Your task to perform on an android device: Open Wikipedia Image 0: 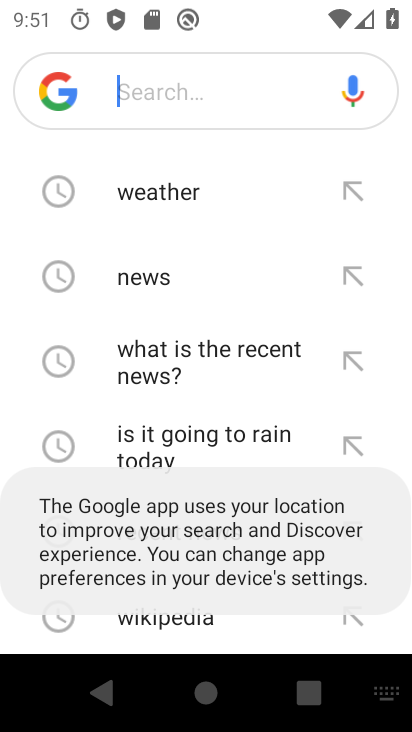
Step 0: press back button
Your task to perform on an android device: Open Wikipedia Image 1: 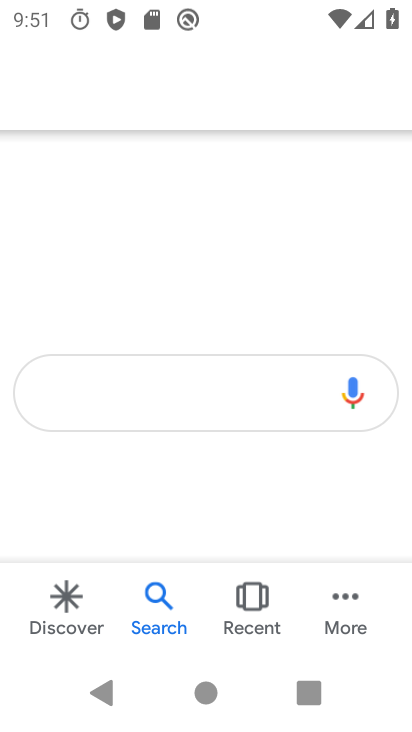
Step 1: press home button
Your task to perform on an android device: Open Wikipedia Image 2: 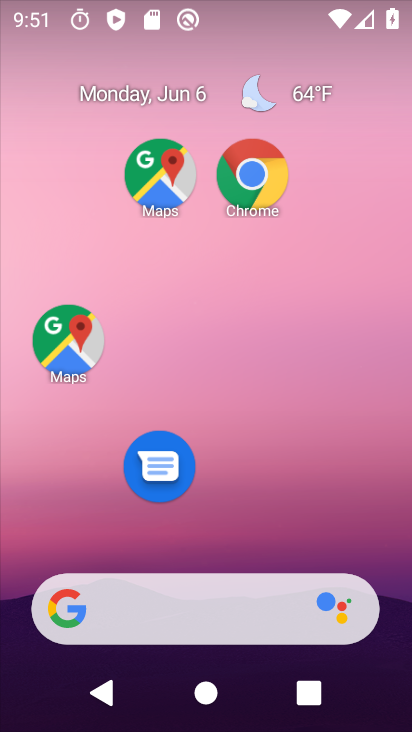
Step 2: drag from (289, 695) to (208, 124)
Your task to perform on an android device: Open Wikipedia Image 3: 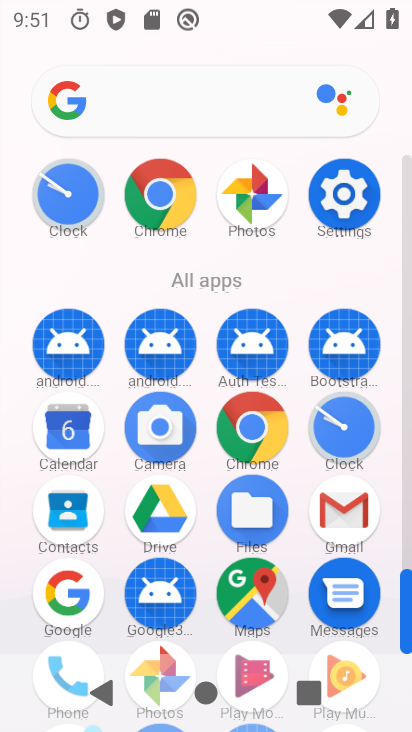
Step 3: click (174, 202)
Your task to perform on an android device: Open Wikipedia Image 4: 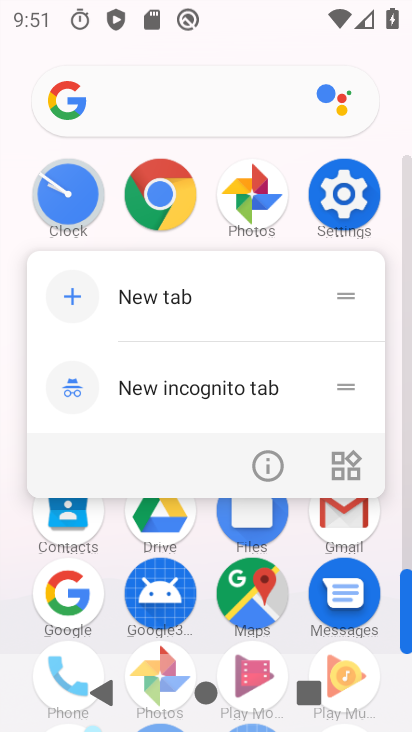
Step 4: click (155, 295)
Your task to perform on an android device: Open Wikipedia Image 5: 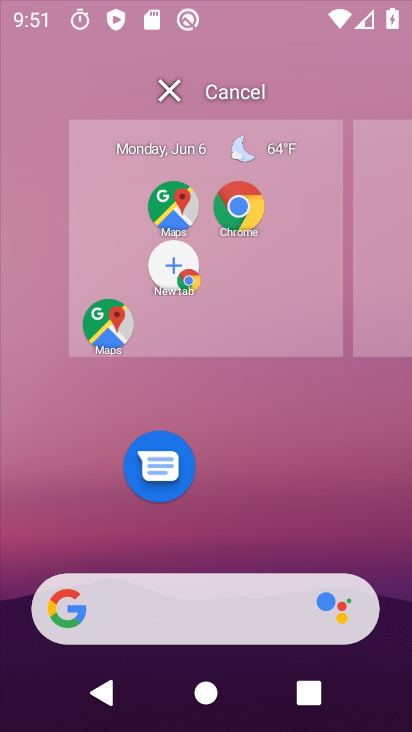
Step 5: click (155, 295)
Your task to perform on an android device: Open Wikipedia Image 6: 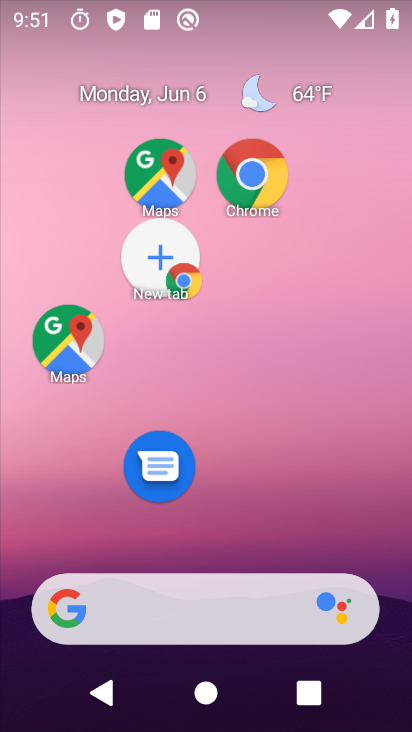
Step 6: drag from (271, 711) to (174, 87)
Your task to perform on an android device: Open Wikipedia Image 7: 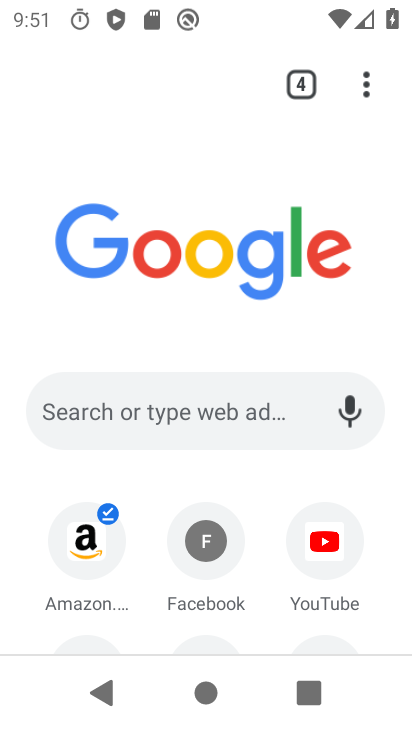
Step 7: drag from (214, 450) to (197, 201)
Your task to perform on an android device: Open Wikipedia Image 8: 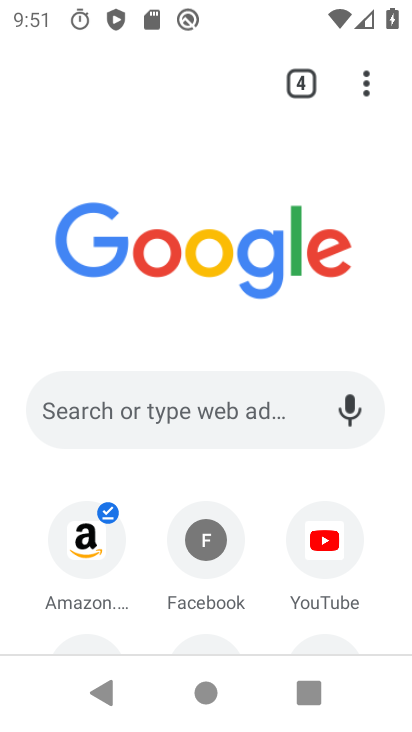
Step 8: drag from (257, 519) to (222, 294)
Your task to perform on an android device: Open Wikipedia Image 9: 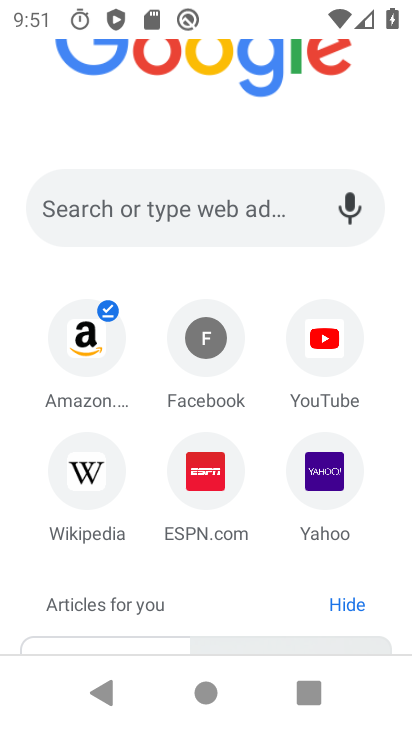
Step 9: drag from (227, 609) to (184, 292)
Your task to perform on an android device: Open Wikipedia Image 10: 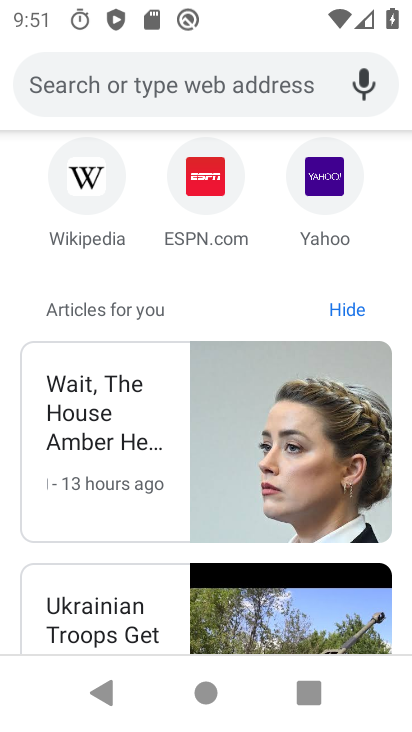
Step 10: click (97, 184)
Your task to perform on an android device: Open Wikipedia Image 11: 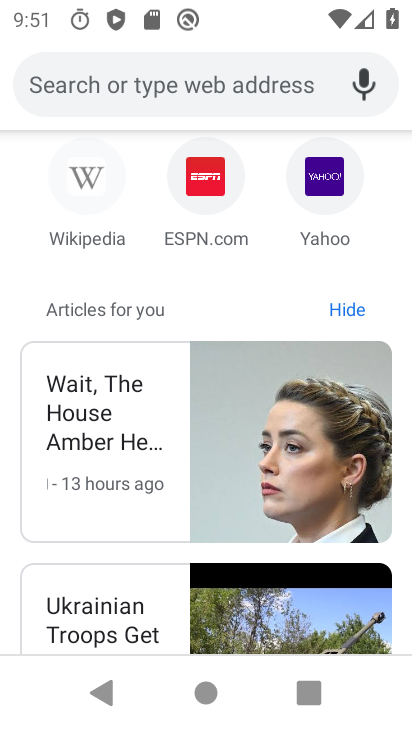
Step 11: click (93, 185)
Your task to perform on an android device: Open Wikipedia Image 12: 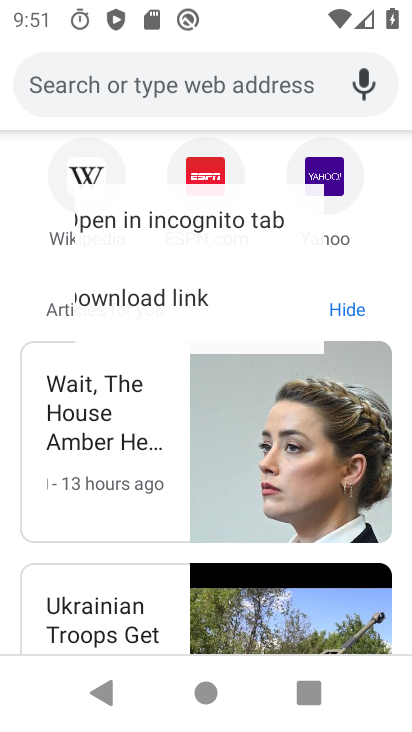
Step 12: click (93, 185)
Your task to perform on an android device: Open Wikipedia Image 13: 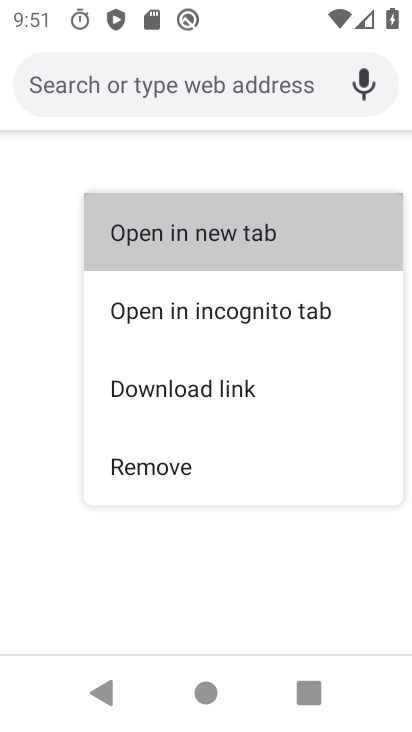
Step 13: click (93, 185)
Your task to perform on an android device: Open Wikipedia Image 14: 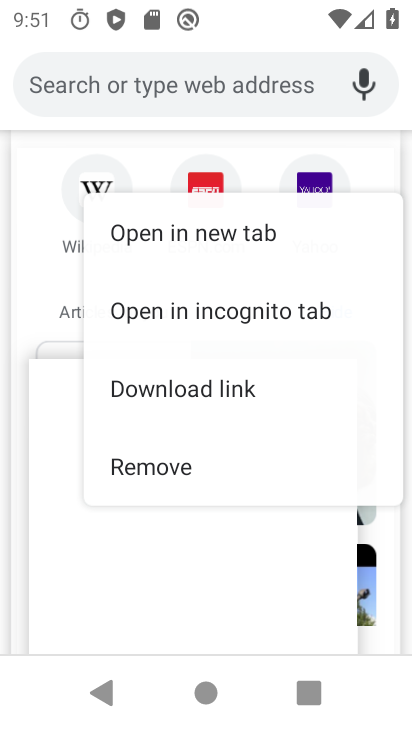
Step 14: click (93, 185)
Your task to perform on an android device: Open Wikipedia Image 15: 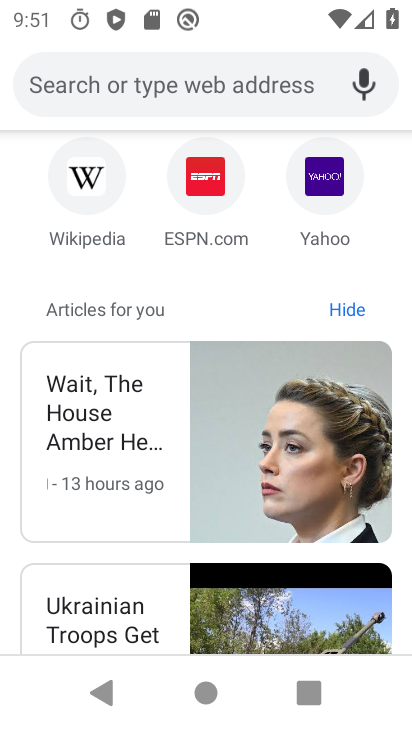
Step 15: click (93, 185)
Your task to perform on an android device: Open Wikipedia Image 16: 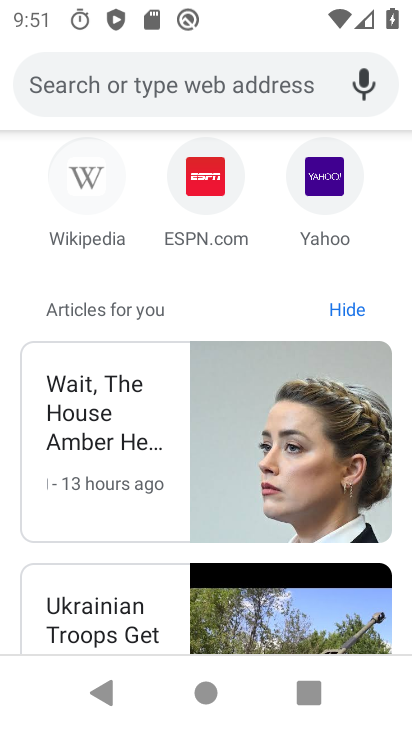
Step 16: click (92, 186)
Your task to perform on an android device: Open Wikipedia Image 17: 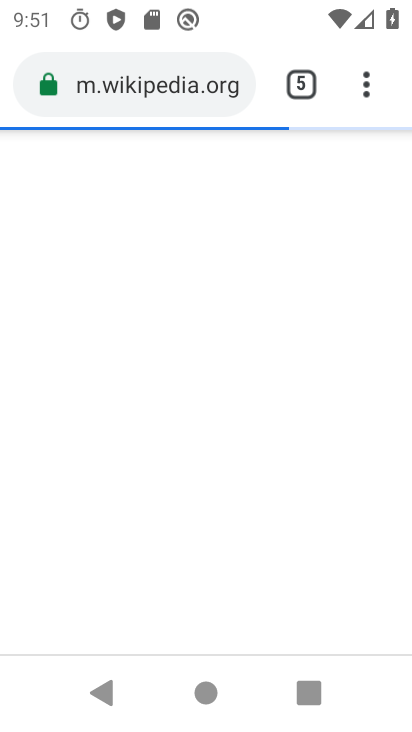
Step 17: click (92, 186)
Your task to perform on an android device: Open Wikipedia Image 18: 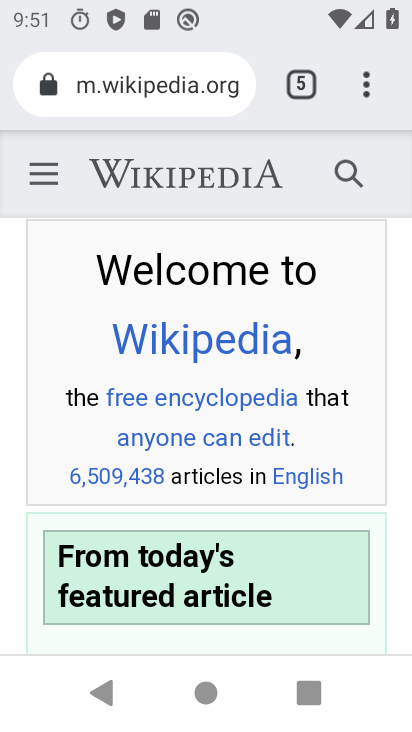
Step 18: task complete